Your task to perform on an android device: turn on improve location accuracy Image 0: 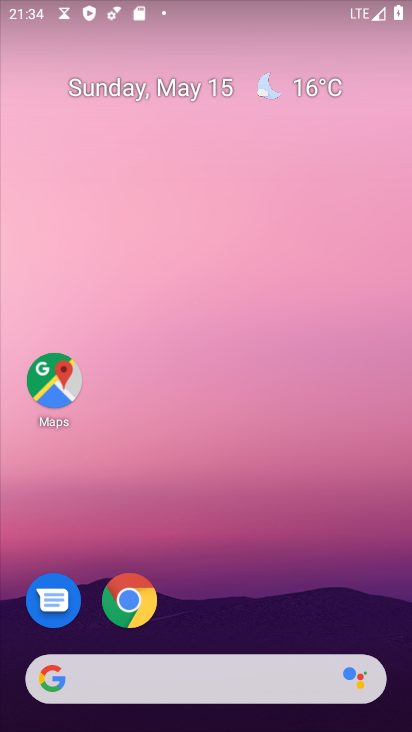
Step 0: drag from (295, 628) to (253, 140)
Your task to perform on an android device: turn on improve location accuracy Image 1: 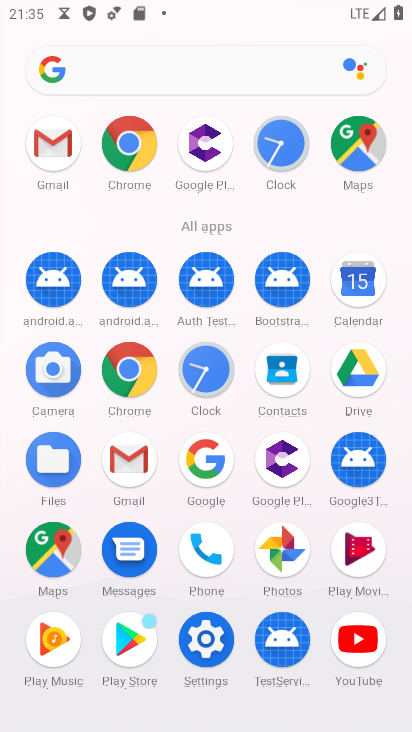
Step 1: click (204, 648)
Your task to perform on an android device: turn on improve location accuracy Image 2: 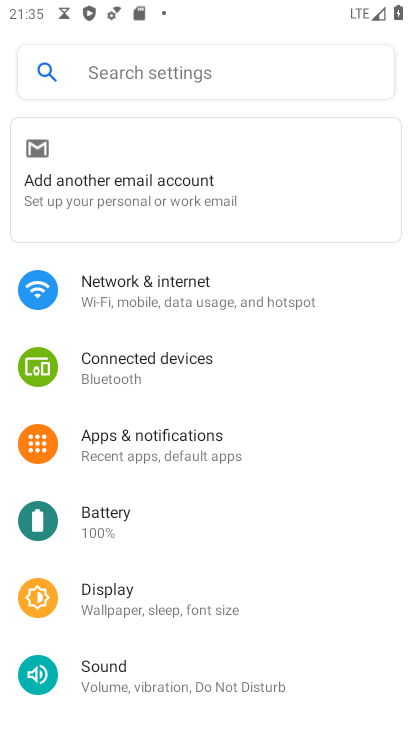
Step 2: drag from (241, 662) to (205, 0)
Your task to perform on an android device: turn on improve location accuracy Image 3: 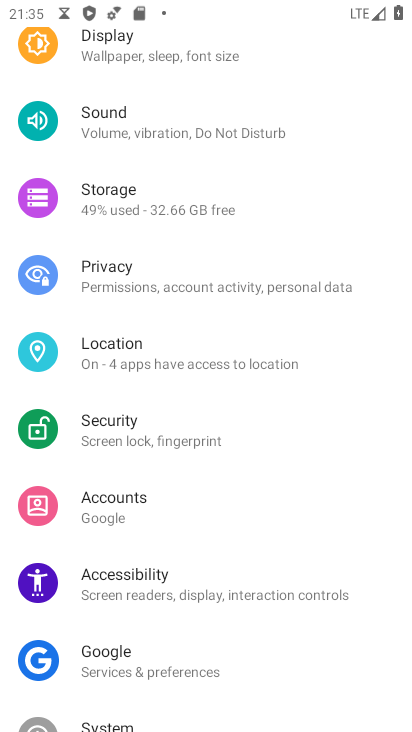
Step 3: click (228, 345)
Your task to perform on an android device: turn on improve location accuracy Image 4: 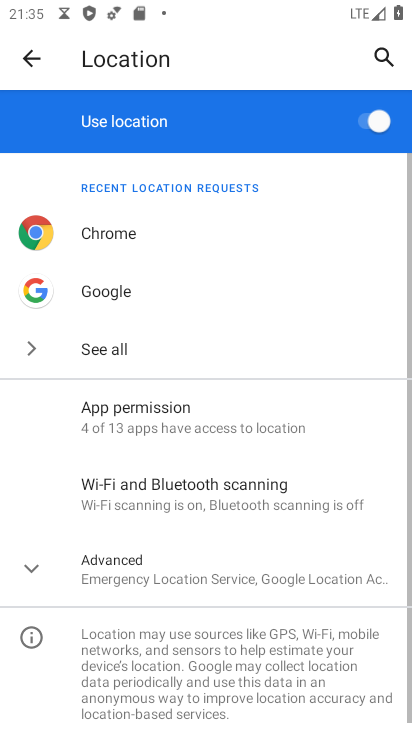
Step 4: click (270, 585)
Your task to perform on an android device: turn on improve location accuracy Image 5: 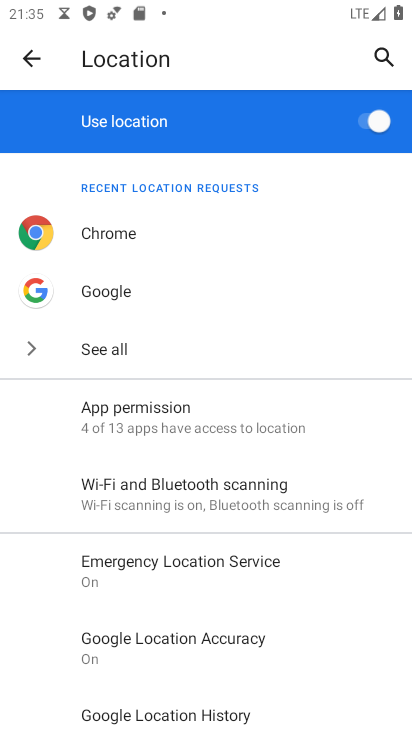
Step 5: drag from (313, 663) to (299, 425)
Your task to perform on an android device: turn on improve location accuracy Image 6: 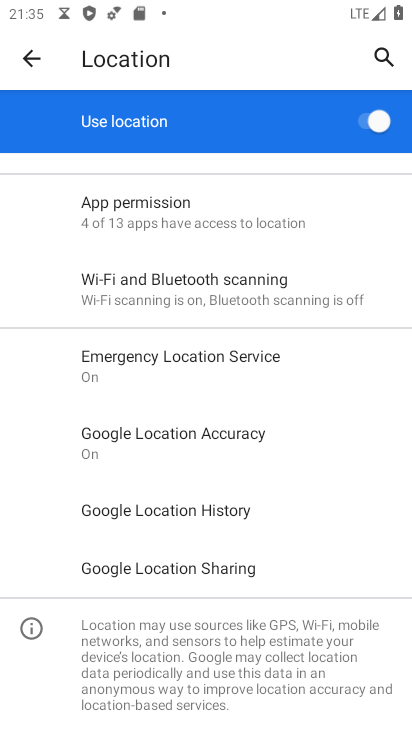
Step 6: click (296, 446)
Your task to perform on an android device: turn on improve location accuracy Image 7: 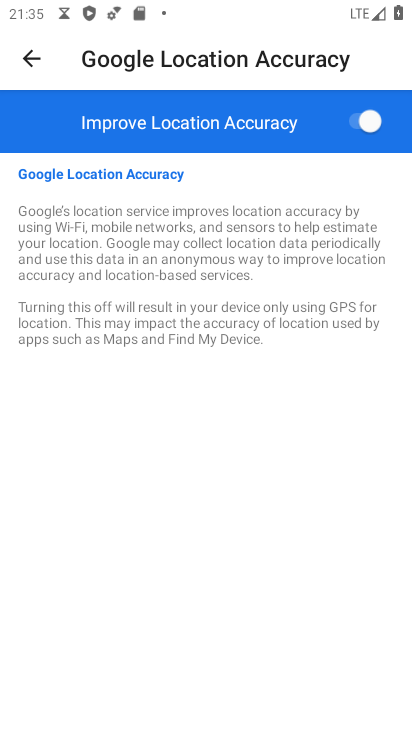
Step 7: task complete